Your task to perform on an android device: Open sound settings Image 0: 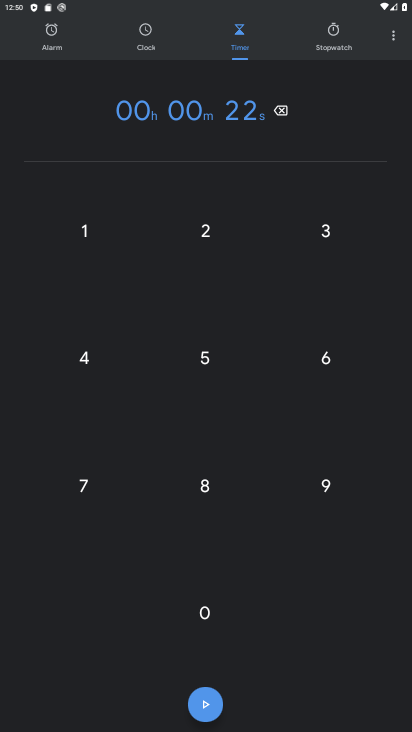
Step 0: press home button
Your task to perform on an android device: Open sound settings Image 1: 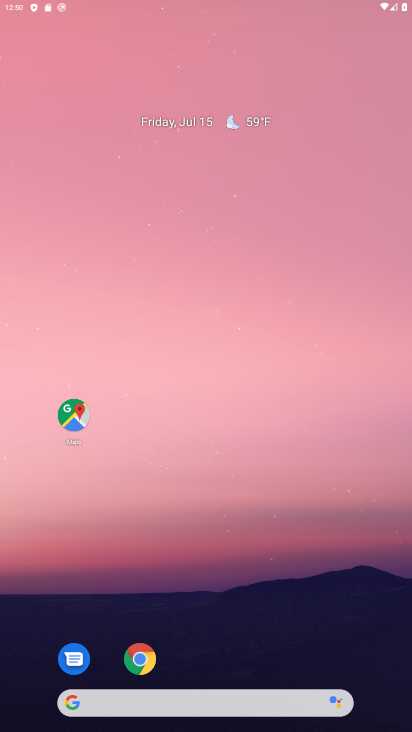
Step 1: drag from (242, 646) to (295, 91)
Your task to perform on an android device: Open sound settings Image 2: 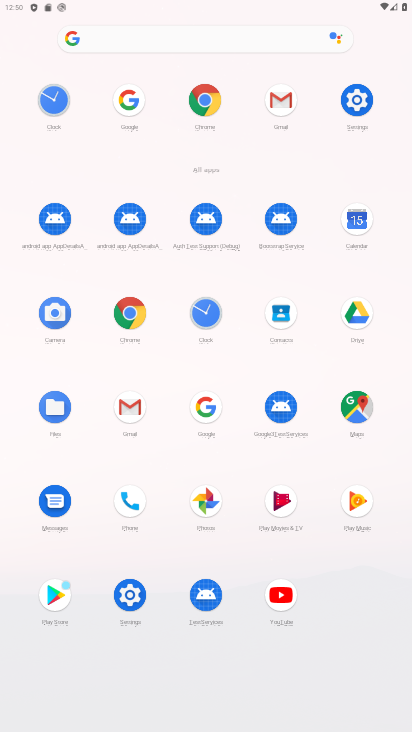
Step 2: click (359, 94)
Your task to perform on an android device: Open sound settings Image 3: 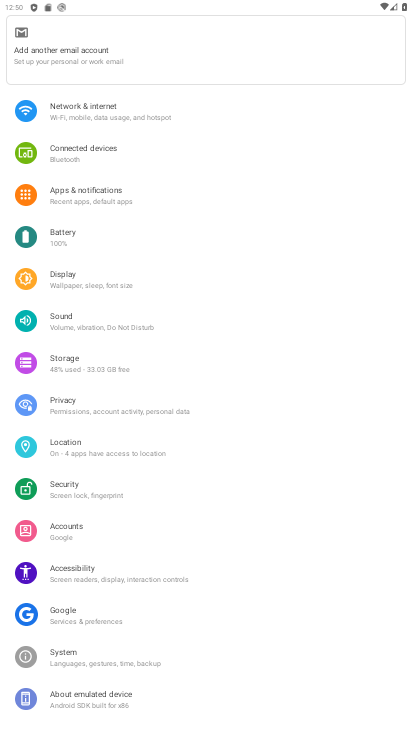
Step 3: click (85, 328)
Your task to perform on an android device: Open sound settings Image 4: 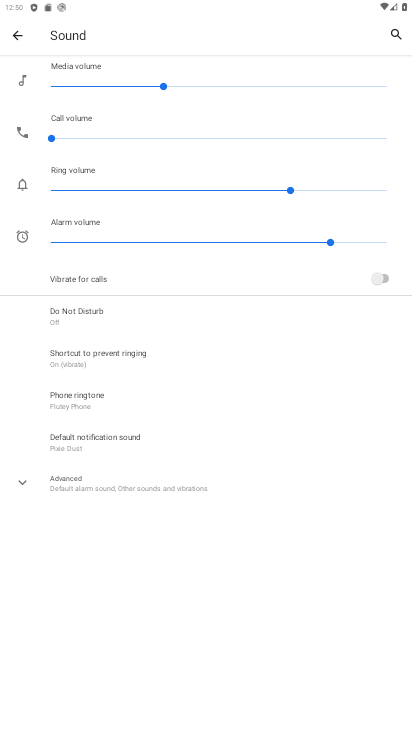
Step 4: task complete